Your task to perform on an android device: change alarm snooze length Image 0: 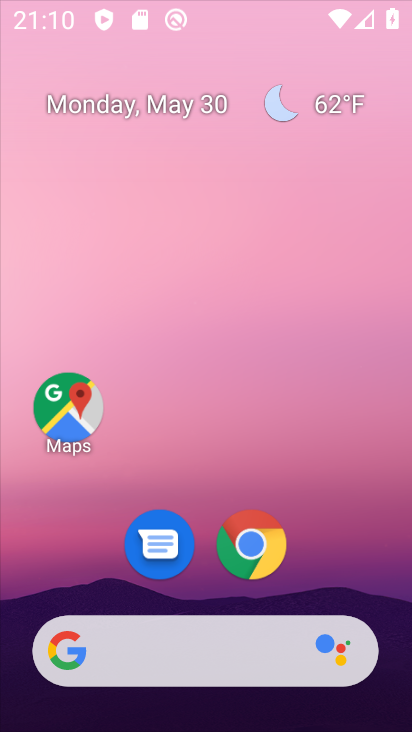
Step 0: click (268, 140)
Your task to perform on an android device: change alarm snooze length Image 1: 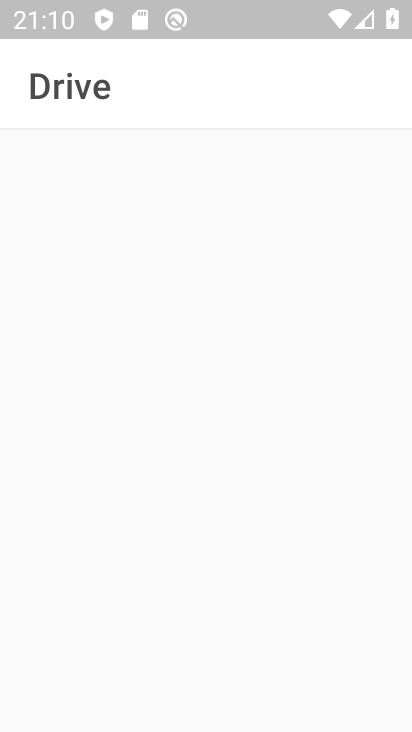
Step 1: press home button
Your task to perform on an android device: change alarm snooze length Image 2: 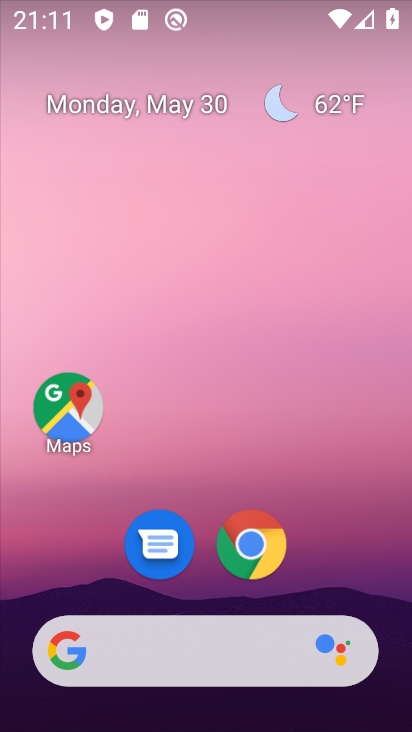
Step 2: drag from (334, 582) to (279, 124)
Your task to perform on an android device: change alarm snooze length Image 3: 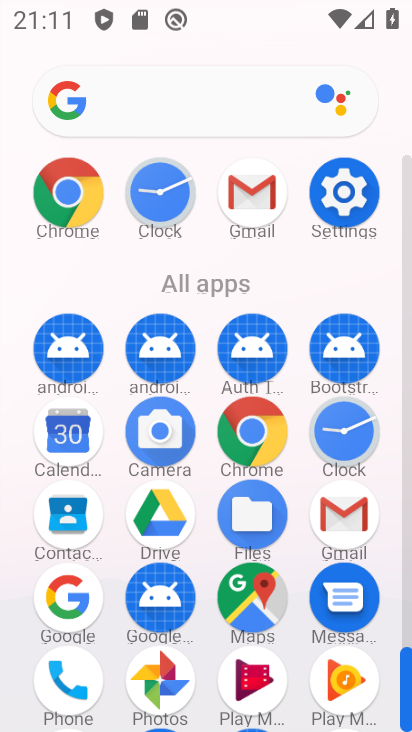
Step 3: click (343, 431)
Your task to perform on an android device: change alarm snooze length Image 4: 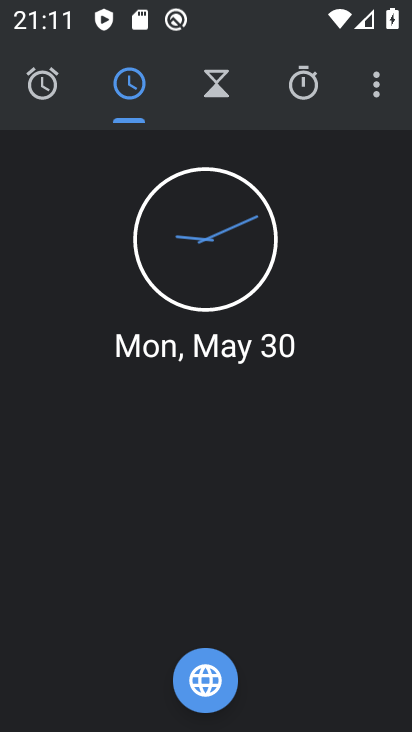
Step 4: click (377, 85)
Your task to perform on an android device: change alarm snooze length Image 5: 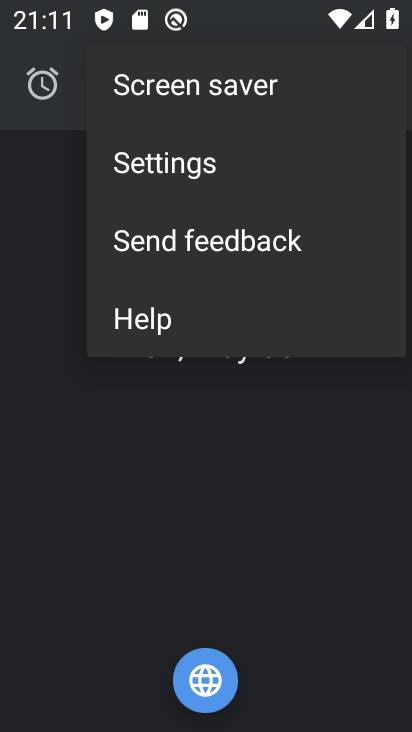
Step 5: click (186, 169)
Your task to perform on an android device: change alarm snooze length Image 6: 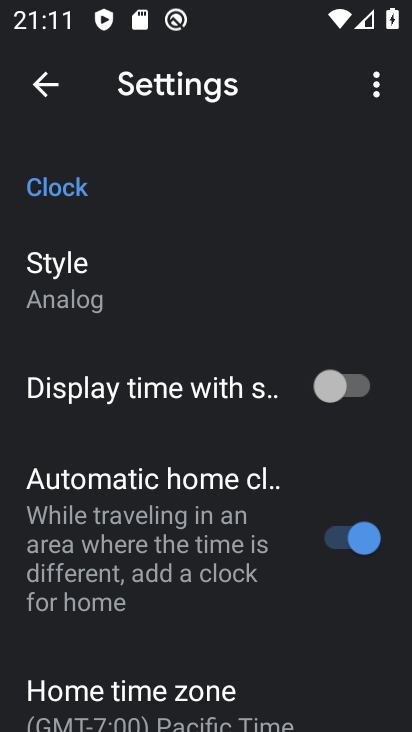
Step 6: drag from (144, 432) to (182, 319)
Your task to perform on an android device: change alarm snooze length Image 7: 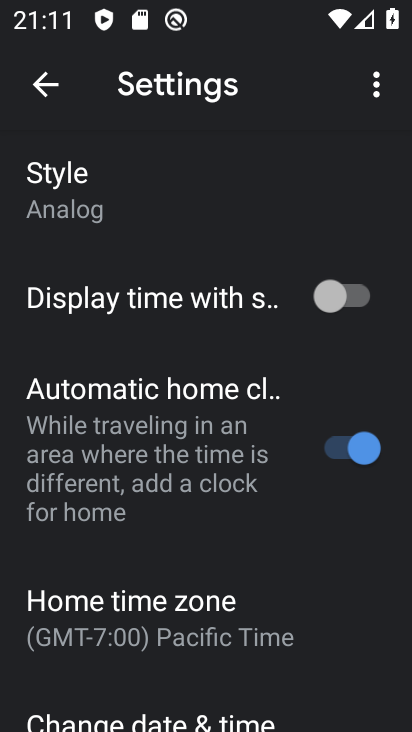
Step 7: drag from (160, 547) to (174, 391)
Your task to perform on an android device: change alarm snooze length Image 8: 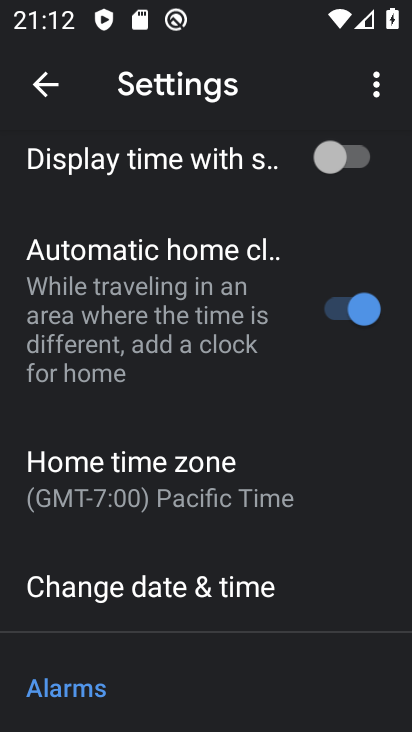
Step 8: drag from (132, 539) to (126, 398)
Your task to perform on an android device: change alarm snooze length Image 9: 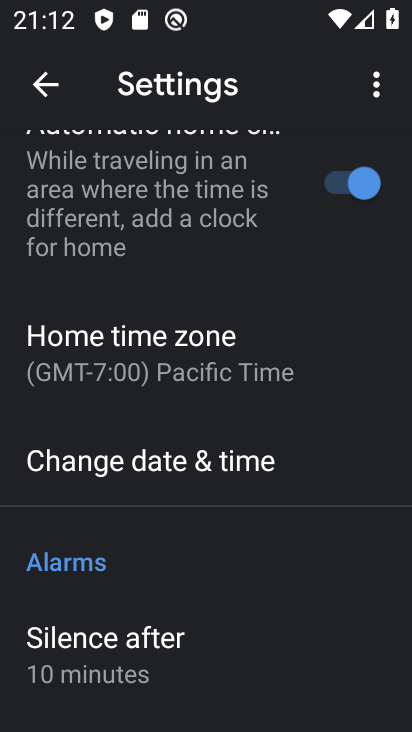
Step 9: drag from (158, 561) to (155, 348)
Your task to perform on an android device: change alarm snooze length Image 10: 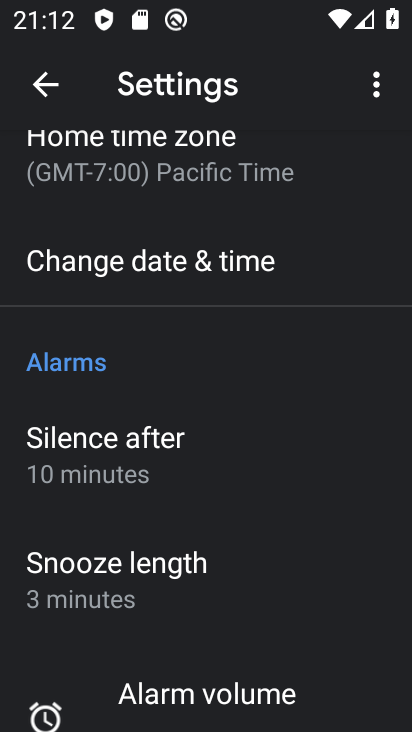
Step 10: drag from (168, 502) to (209, 436)
Your task to perform on an android device: change alarm snooze length Image 11: 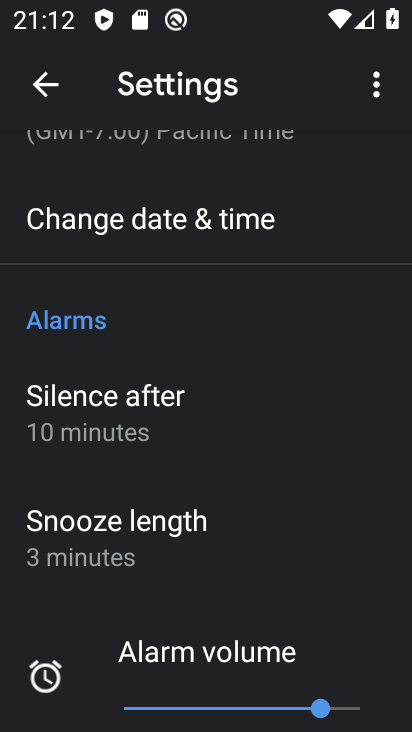
Step 11: click (125, 517)
Your task to perform on an android device: change alarm snooze length Image 12: 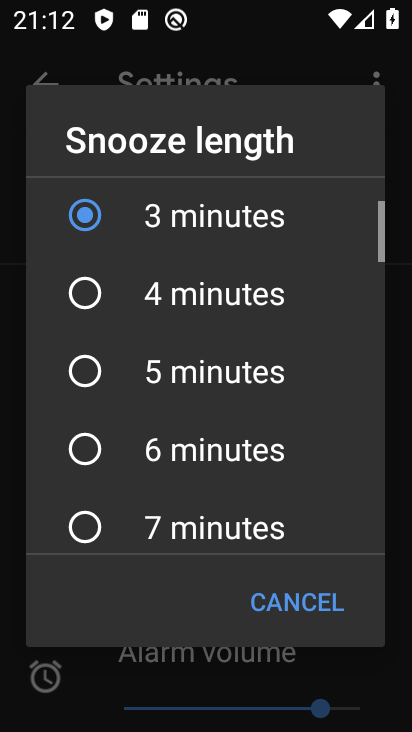
Step 12: drag from (169, 496) to (209, 356)
Your task to perform on an android device: change alarm snooze length Image 13: 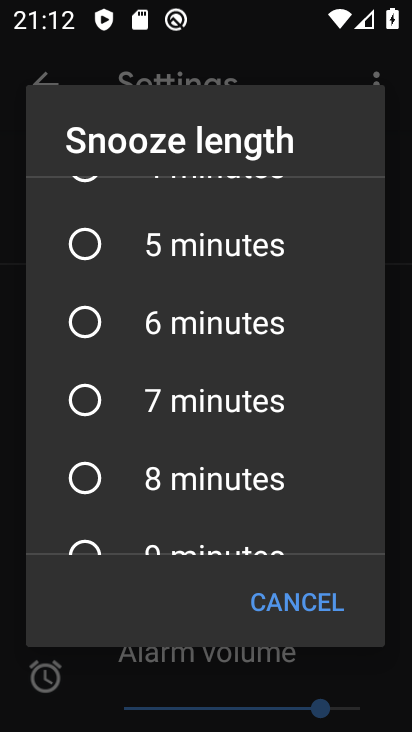
Step 13: drag from (187, 437) to (274, 317)
Your task to perform on an android device: change alarm snooze length Image 14: 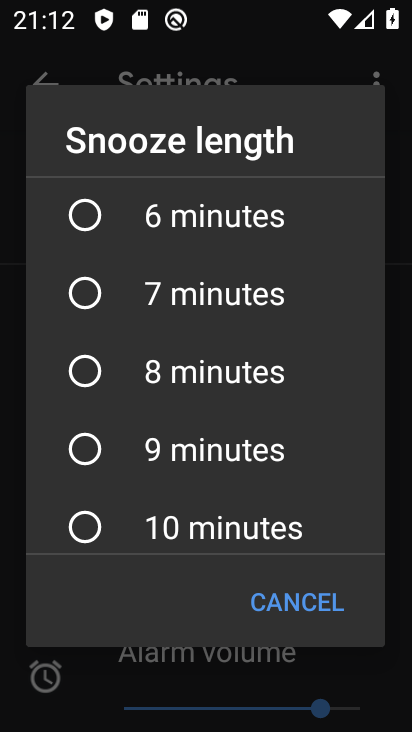
Step 14: drag from (195, 490) to (220, 424)
Your task to perform on an android device: change alarm snooze length Image 15: 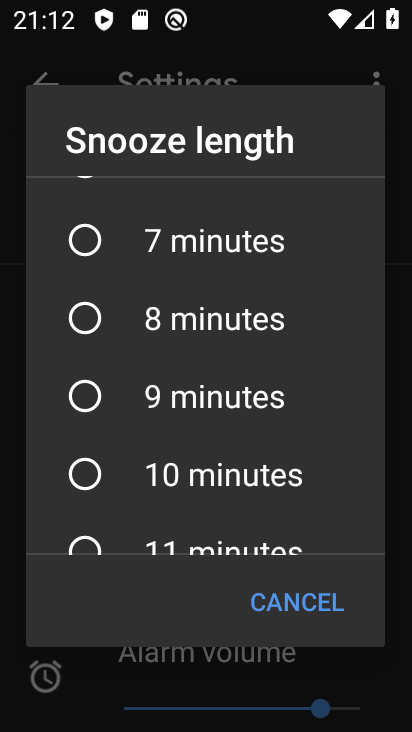
Step 15: drag from (210, 504) to (281, 413)
Your task to perform on an android device: change alarm snooze length Image 16: 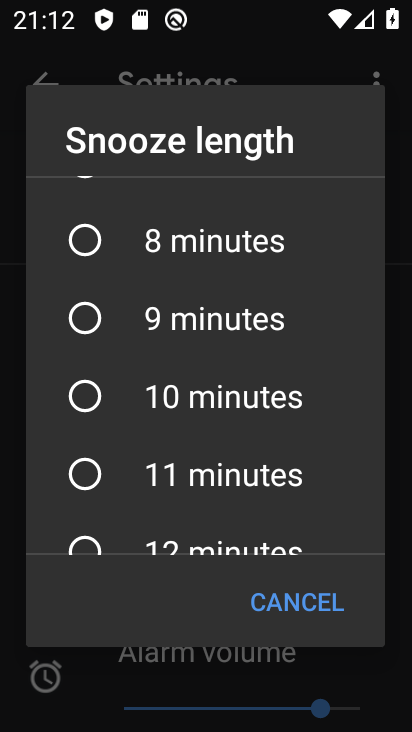
Step 16: drag from (198, 516) to (256, 404)
Your task to perform on an android device: change alarm snooze length Image 17: 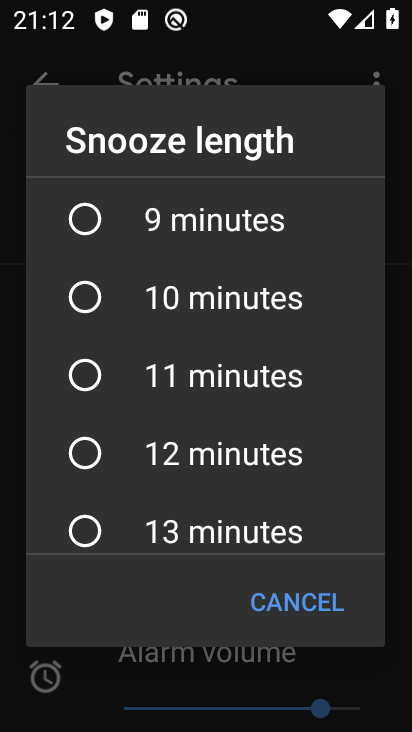
Step 17: click (89, 365)
Your task to perform on an android device: change alarm snooze length Image 18: 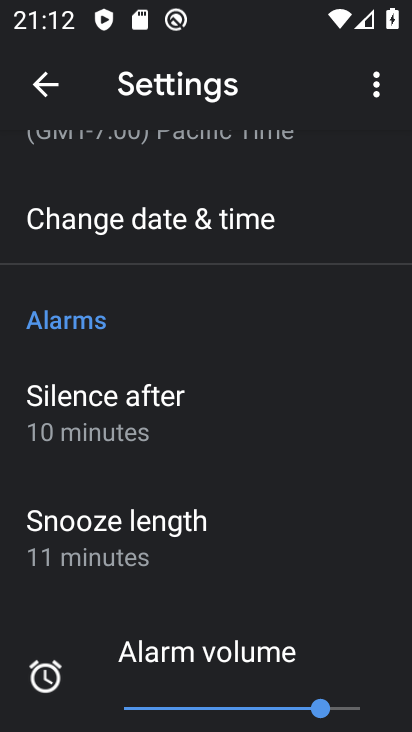
Step 18: task complete